Your task to perform on an android device: Clear the cart on ebay.com. Search for "razer blade" on ebay.com, select the first entry, add it to the cart, then select checkout. Image 0: 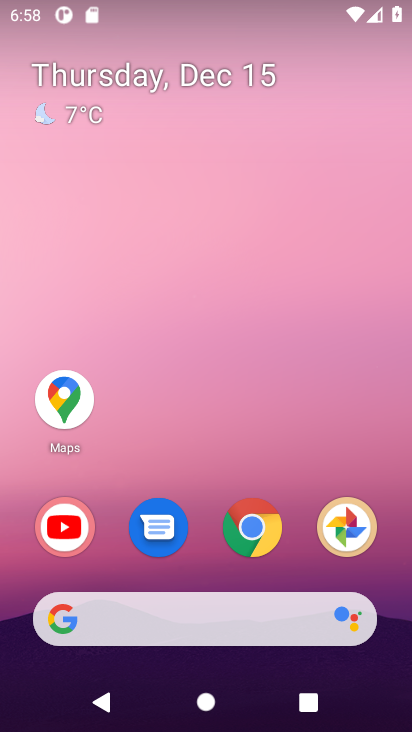
Step 0: click (238, 535)
Your task to perform on an android device: Clear the cart on ebay.com. Search for "razer blade" on ebay.com, select the first entry, add it to the cart, then select checkout. Image 1: 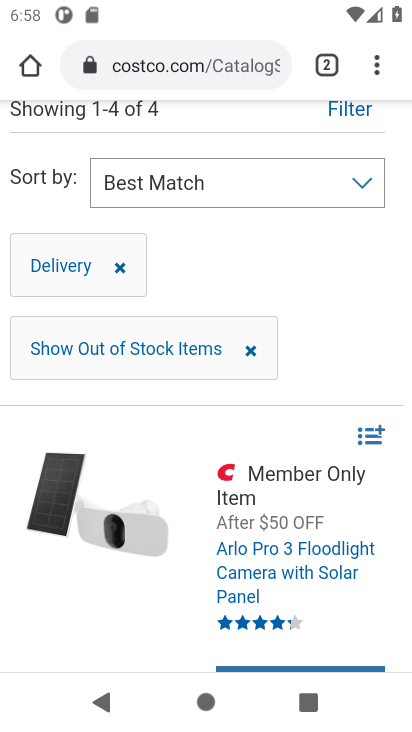
Step 1: click (229, 78)
Your task to perform on an android device: Clear the cart on ebay.com. Search for "razer blade" on ebay.com, select the first entry, add it to the cart, then select checkout. Image 2: 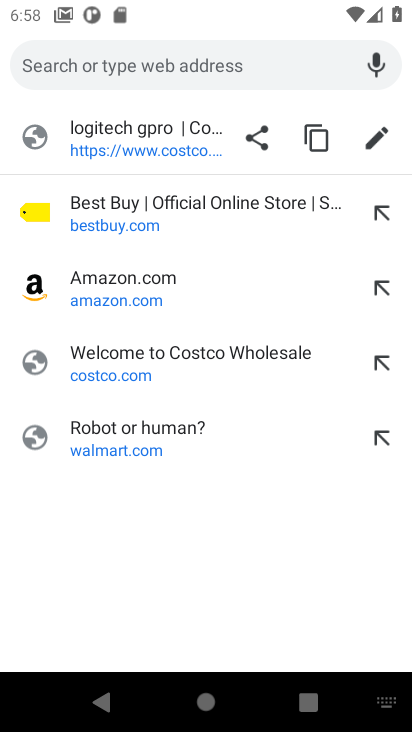
Step 2: click (158, 68)
Your task to perform on an android device: Clear the cart on ebay.com. Search for "razer blade" on ebay.com, select the first entry, add it to the cart, then select checkout. Image 3: 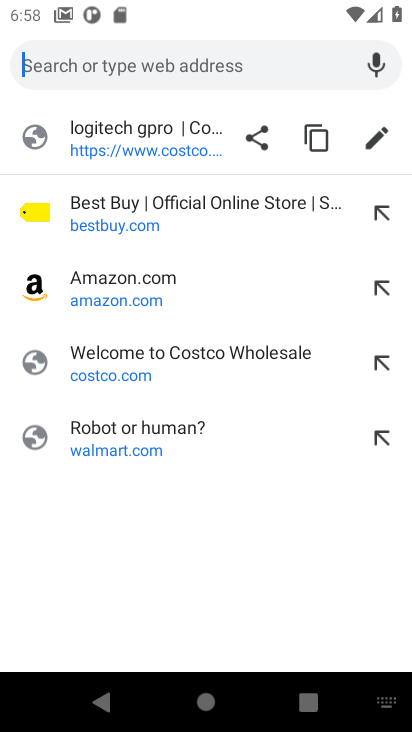
Step 3: type "ebay"
Your task to perform on an android device: Clear the cart on ebay.com. Search for "razer blade" on ebay.com, select the first entry, add it to the cart, then select checkout. Image 4: 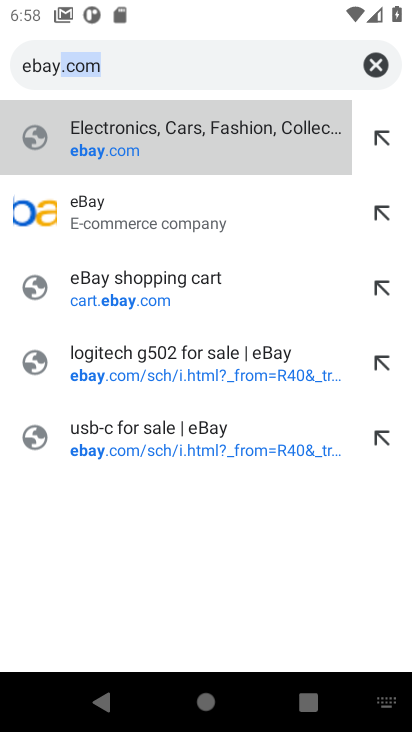
Step 4: click (149, 144)
Your task to perform on an android device: Clear the cart on ebay.com. Search for "razer blade" on ebay.com, select the first entry, add it to the cart, then select checkout. Image 5: 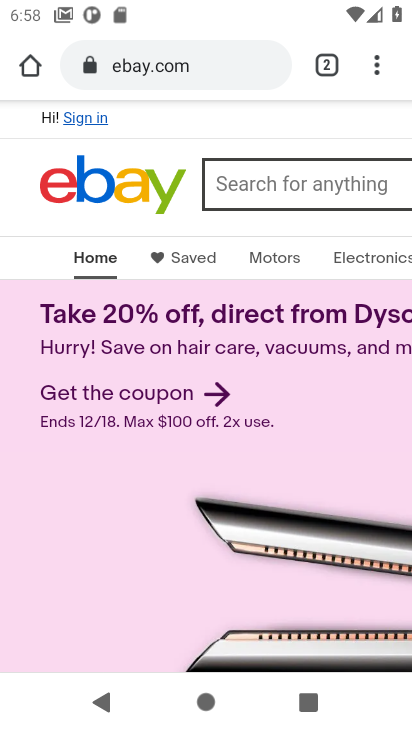
Step 5: click (221, 186)
Your task to perform on an android device: Clear the cart on ebay.com. Search for "razer blade" on ebay.com, select the first entry, add it to the cart, then select checkout. Image 6: 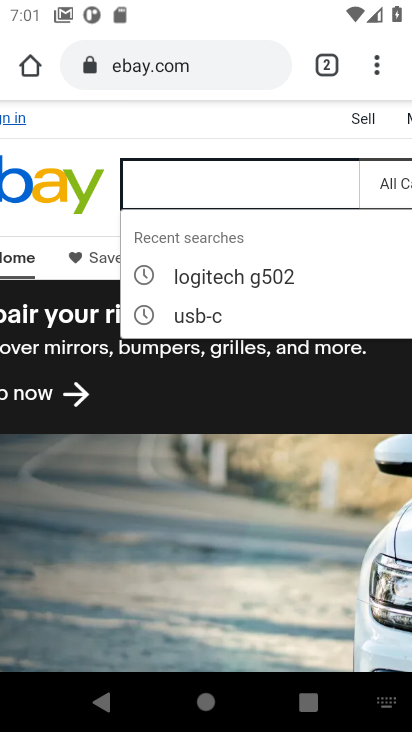
Step 6: task complete